Your task to perform on an android device: clear all cookies in the chrome app Image 0: 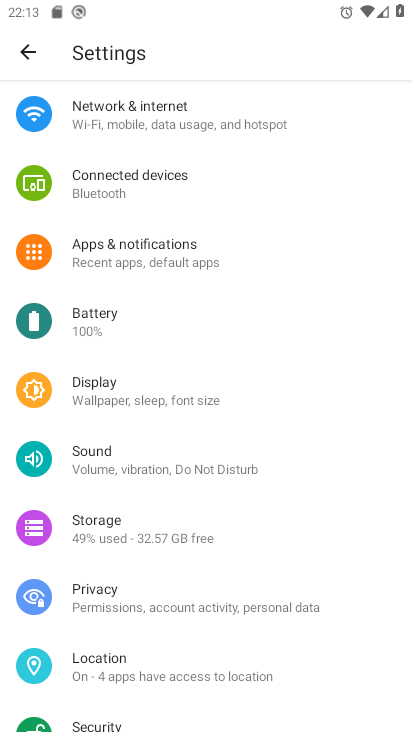
Step 0: press home button
Your task to perform on an android device: clear all cookies in the chrome app Image 1: 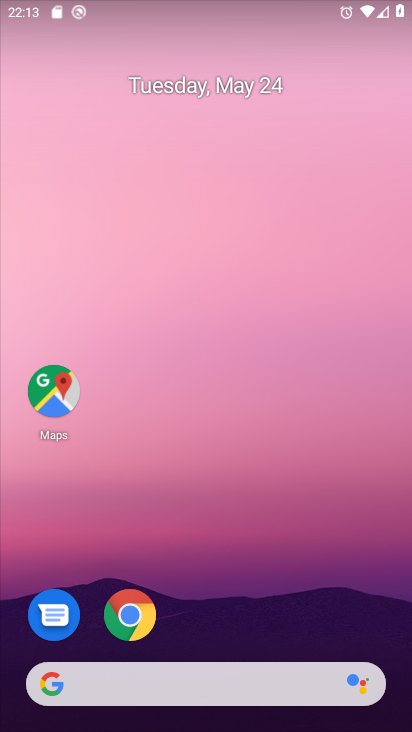
Step 1: click (120, 601)
Your task to perform on an android device: clear all cookies in the chrome app Image 2: 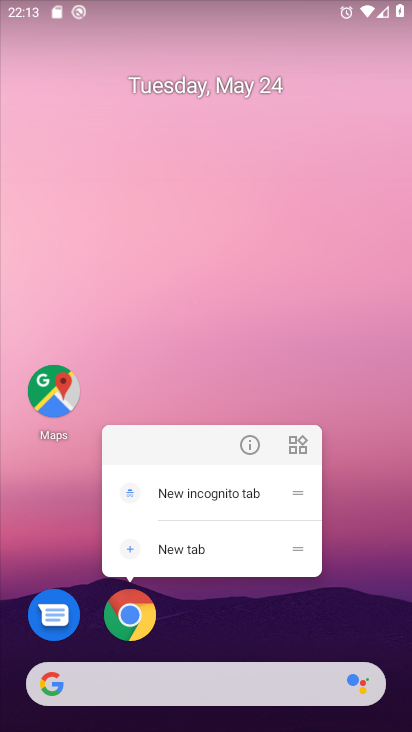
Step 2: click (138, 612)
Your task to perform on an android device: clear all cookies in the chrome app Image 3: 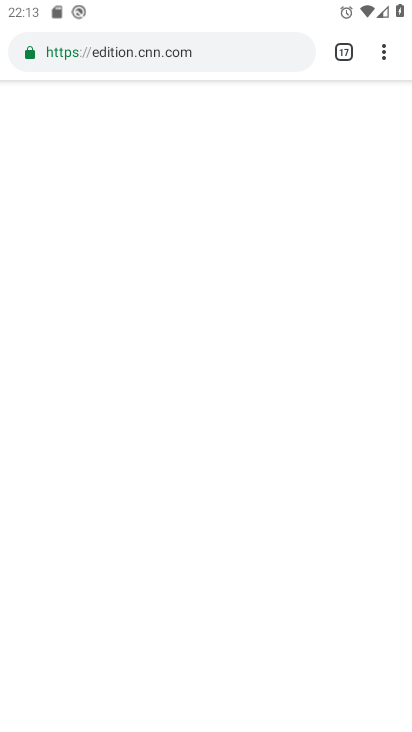
Step 3: click (378, 45)
Your task to perform on an android device: clear all cookies in the chrome app Image 4: 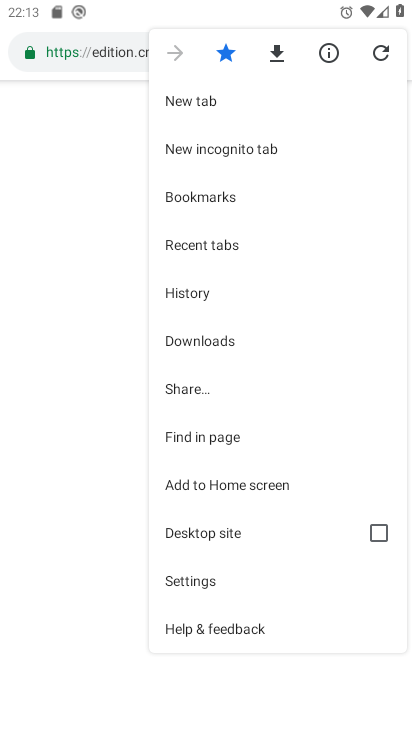
Step 4: click (208, 577)
Your task to perform on an android device: clear all cookies in the chrome app Image 5: 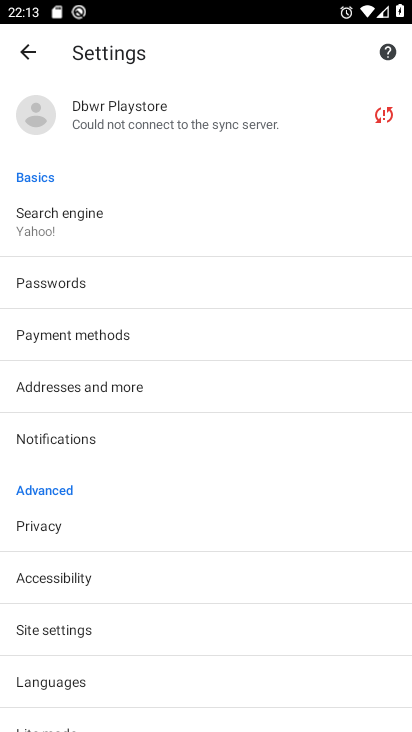
Step 5: click (202, 620)
Your task to perform on an android device: clear all cookies in the chrome app Image 6: 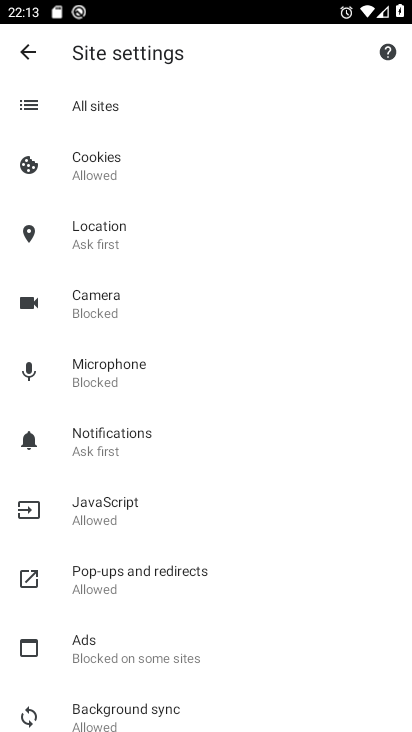
Step 6: click (114, 170)
Your task to perform on an android device: clear all cookies in the chrome app Image 7: 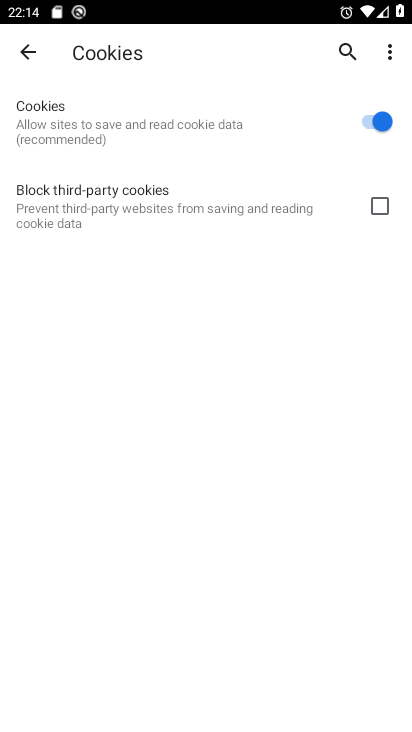
Step 7: task complete